Your task to perform on an android device: Go to Google Image 0: 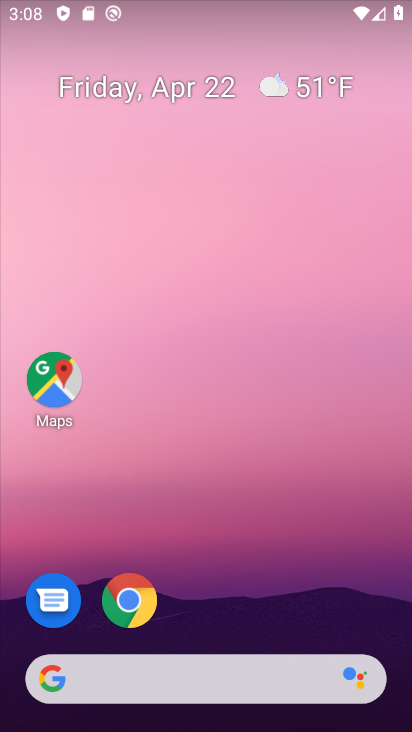
Step 0: drag from (300, 681) to (228, 171)
Your task to perform on an android device: Go to Google Image 1: 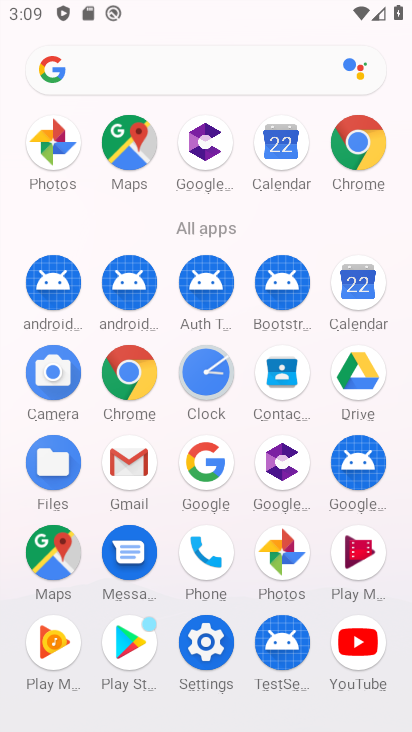
Step 1: click (207, 476)
Your task to perform on an android device: Go to Google Image 2: 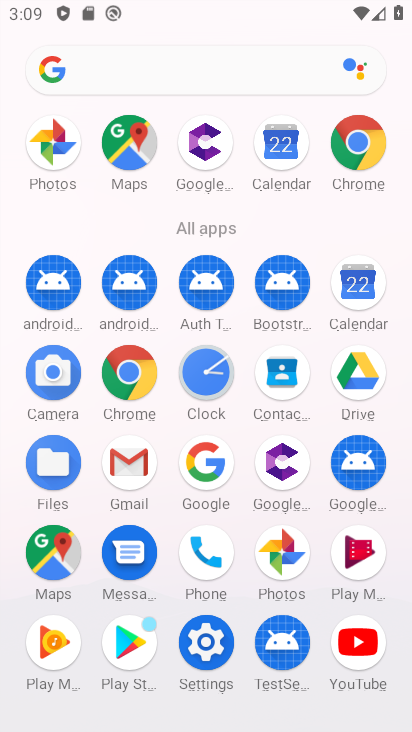
Step 2: click (207, 476)
Your task to perform on an android device: Go to Google Image 3: 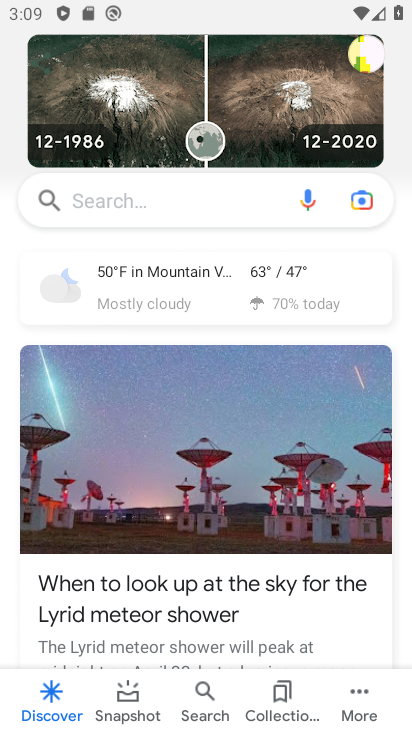
Step 3: click (171, 289)
Your task to perform on an android device: Go to Google Image 4: 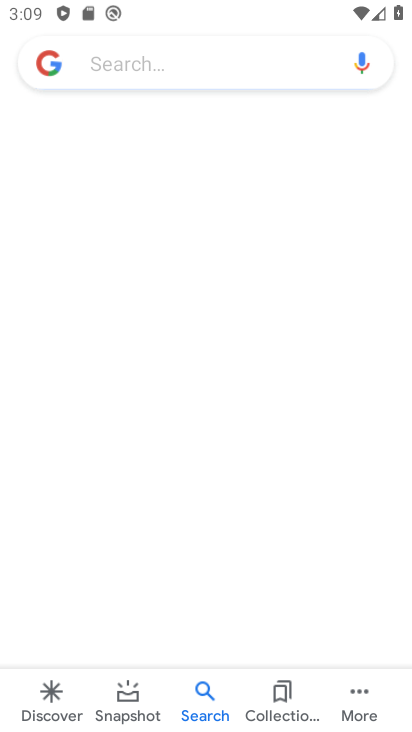
Step 4: click (168, 293)
Your task to perform on an android device: Go to Google Image 5: 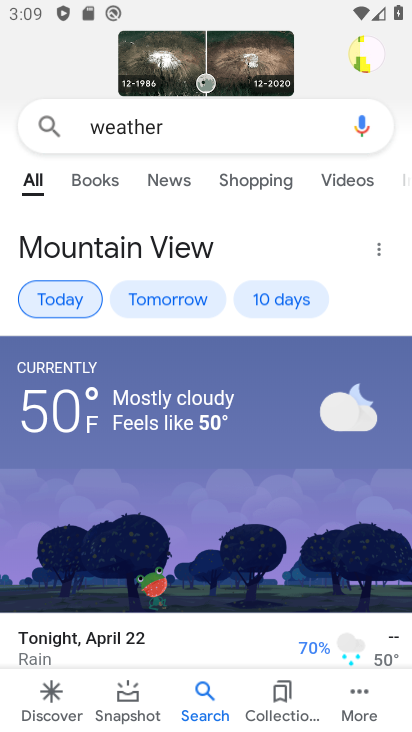
Step 5: task complete